Your task to perform on an android device: change notifications settings Image 0: 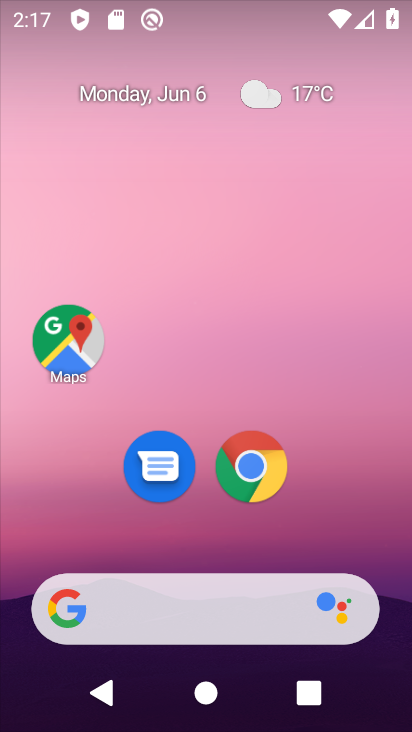
Step 0: drag from (382, 563) to (245, 107)
Your task to perform on an android device: change notifications settings Image 1: 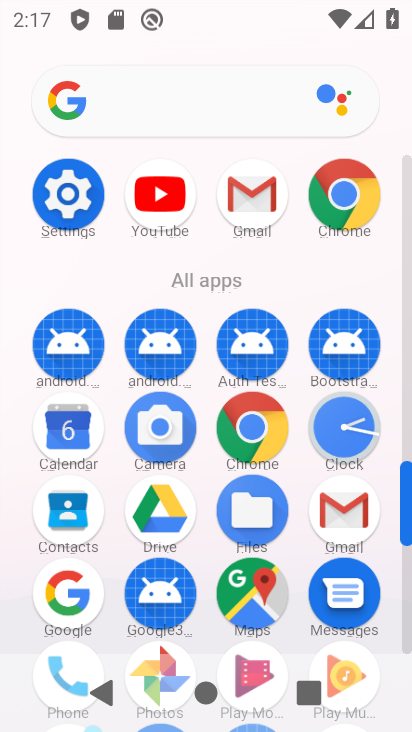
Step 1: click (53, 197)
Your task to perform on an android device: change notifications settings Image 2: 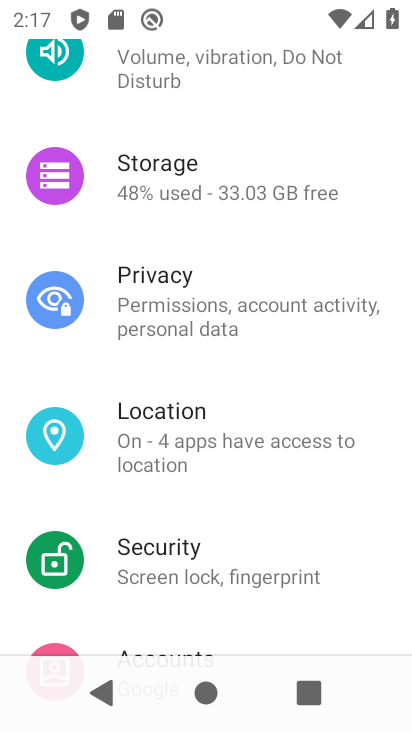
Step 2: drag from (290, 431) to (293, 725)
Your task to perform on an android device: change notifications settings Image 3: 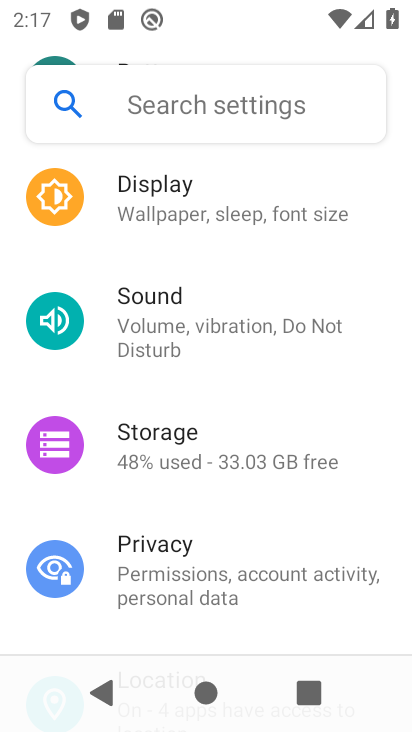
Step 3: drag from (235, 217) to (237, 567)
Your task to perform on an android device: change notifications settings Image 4: 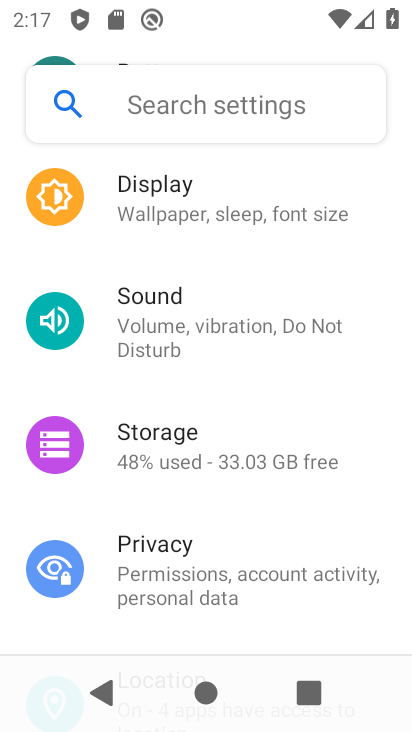
Step 4: drag from (202, 265) to (214, 612)
Your task to perform on an android device: change notifications settings Image 5: 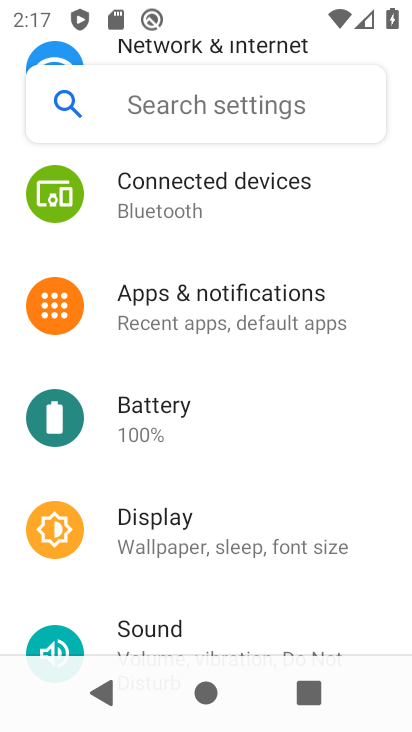
Step 5: click (227, 319)
Your task to perform on an android device: change notifications settings Image 6: 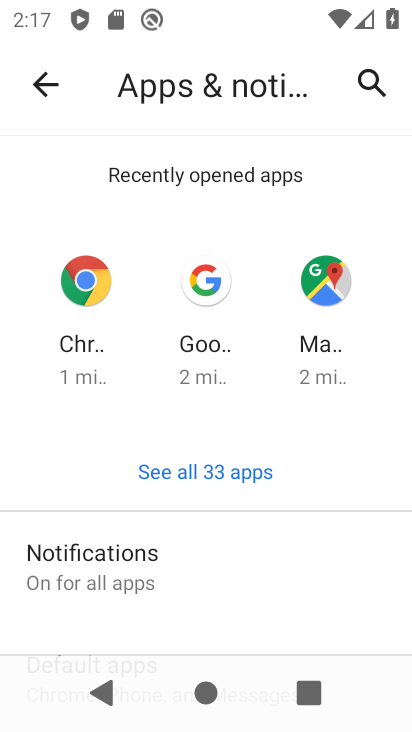
Step 6: drag from (221, 599) to (189, 427)
Your task to perform on an android device: change notifications settings Image 7: 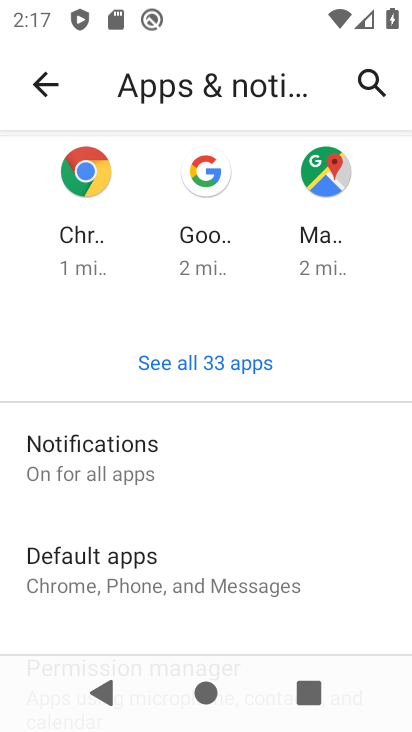
Step 7: click (189, 447)
Your task to perform on an android device: change notifications settings Image 8: 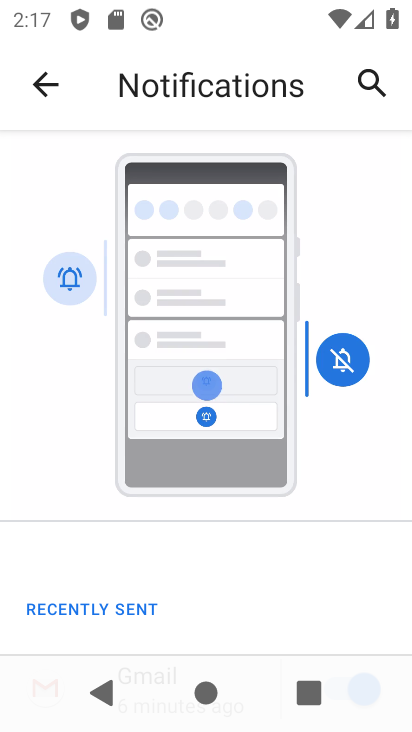
Step 8: drag from (200, 607) to (168, 213)
Your task to perform on an android device: change notifications settings Image 9: 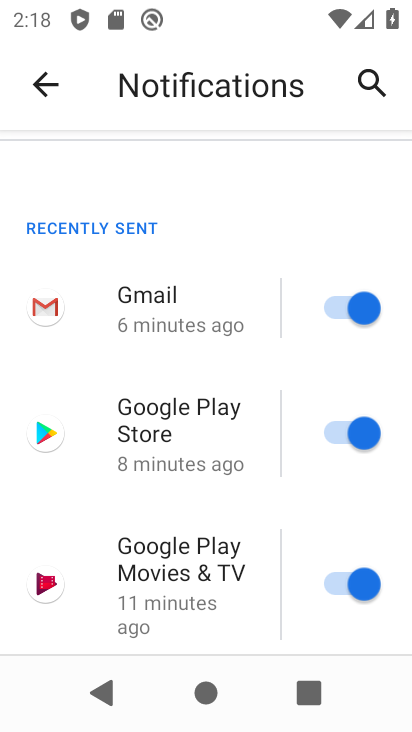
Step 9: drag from (209, 490) to (205, 188)
Your task to perform on an android device: change notifications settings Image 10: 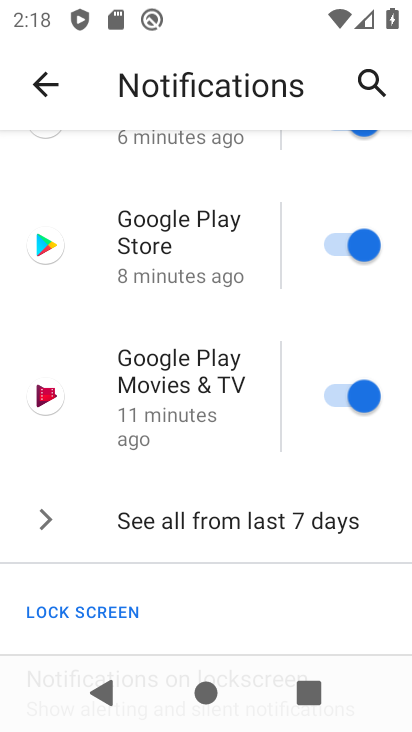
Step 10: drag from (197, 570) to (168, 248)
Your task to perform on an android device: change notifications settings Image 11: 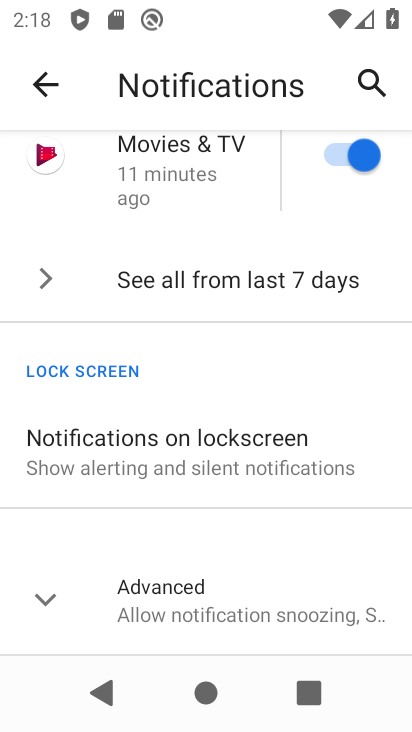
Step 11: click (203, 613)
Your task to perform on an android device: change notifications settings Image 12: 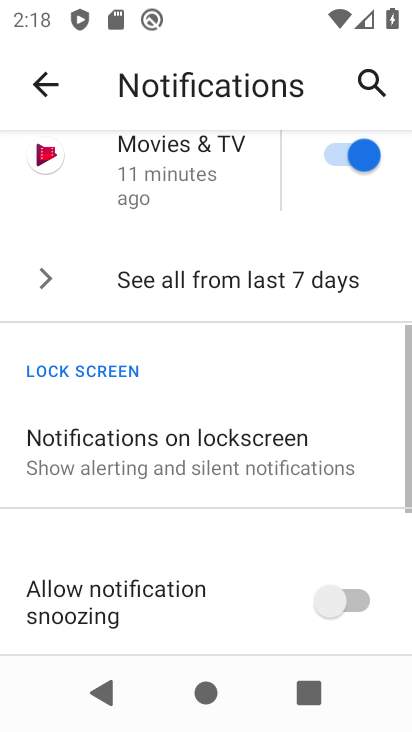
Step 12: drag from (203, 613) to (189, 248)
Your task to perform on an android device: change notifications settings Image 13: 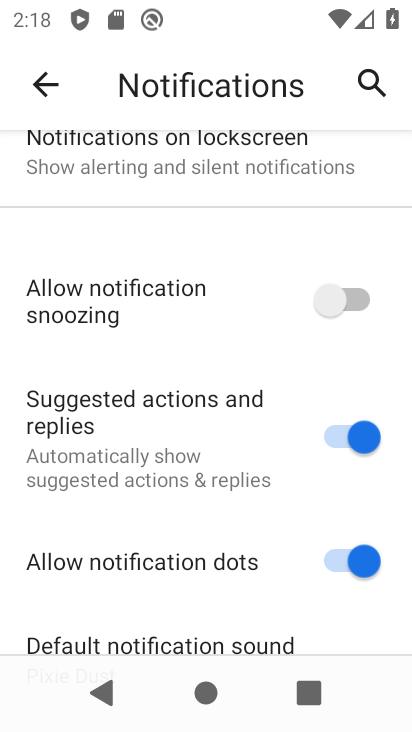
Step 13: click (365, 315)
Your task to perform on an android device: change notifications settings Image 14: 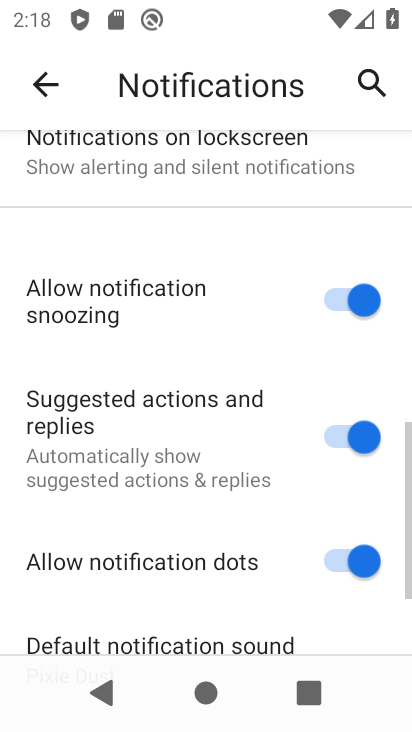
Step 14: click (344, 436)
Your task to perform on an android device: change notifications settings Image 15: 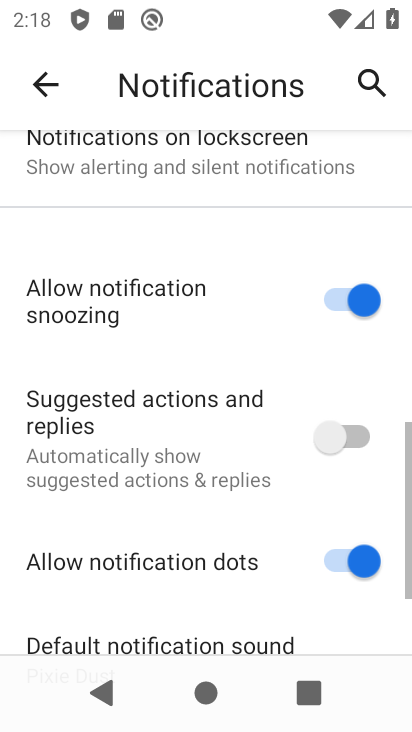
Step 15: click (350, 557)
Your task to perform on an android device: change notifications settings Image 16: 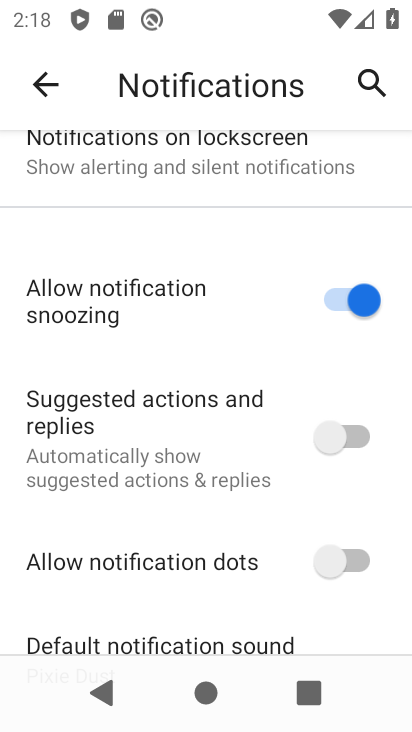
Step 16: task complete